Your task to perform on an android device: Go to Wikipedia Image 0: 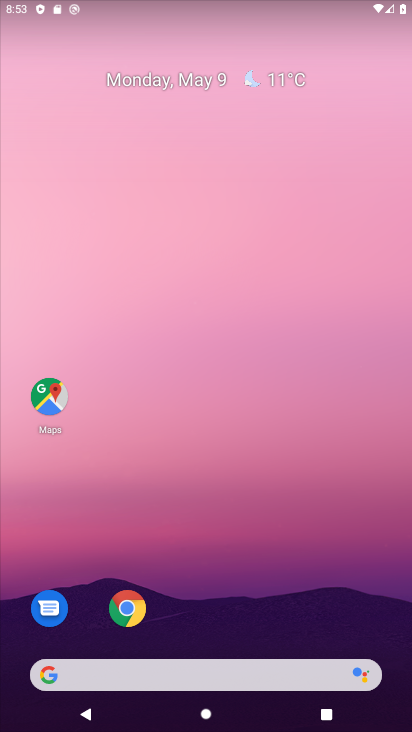
Step 0: click (134, 608)
Your task to perform on an android device: Go to Wikipedia Image 1: 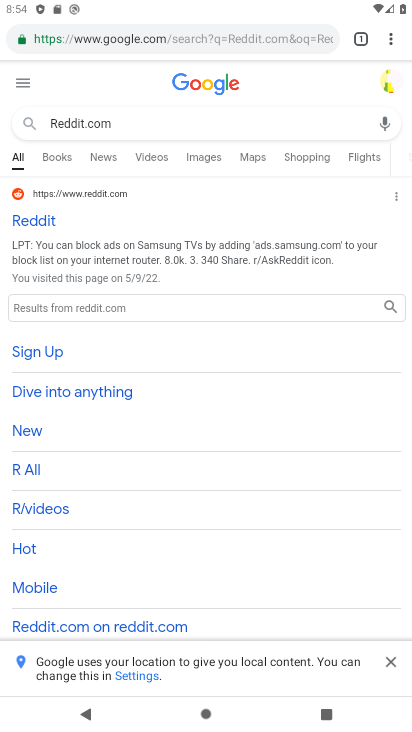
Step 1: click (160, 39)
Your task to perform on an android device: Go to Wikipedia Image 2: 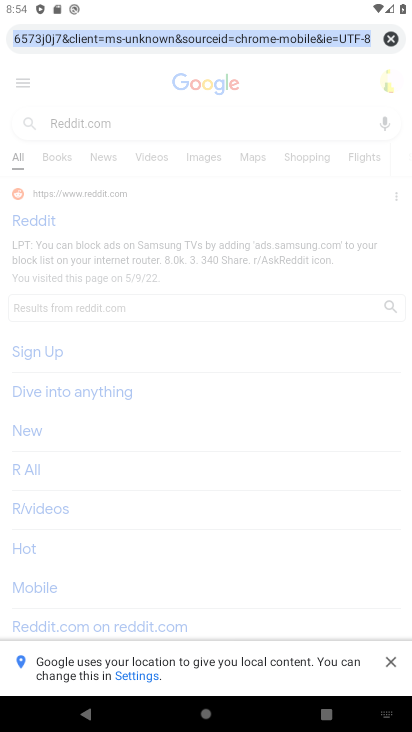
Step 2: type "wikipedia"
Your task to perform on an android device: Go to Wikipedia Image 3: 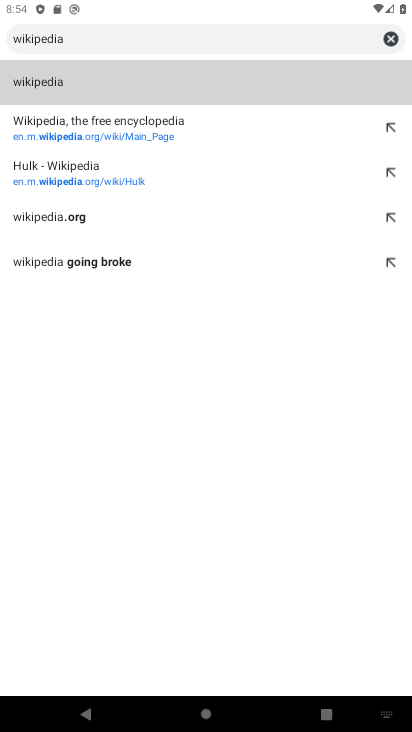
Step 3: click (122, 86)
Your task to perform on an android device: Go to Wikipedia Image 4: 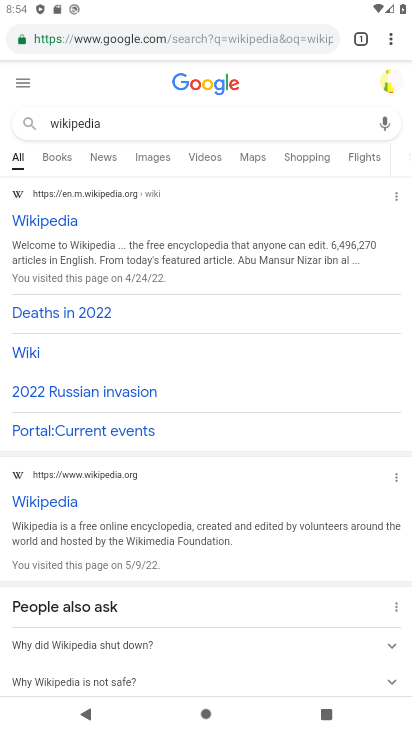
Step 4: task complete